Your task to perform on an android device: What's a good restaurant in Dallas? Image 0: 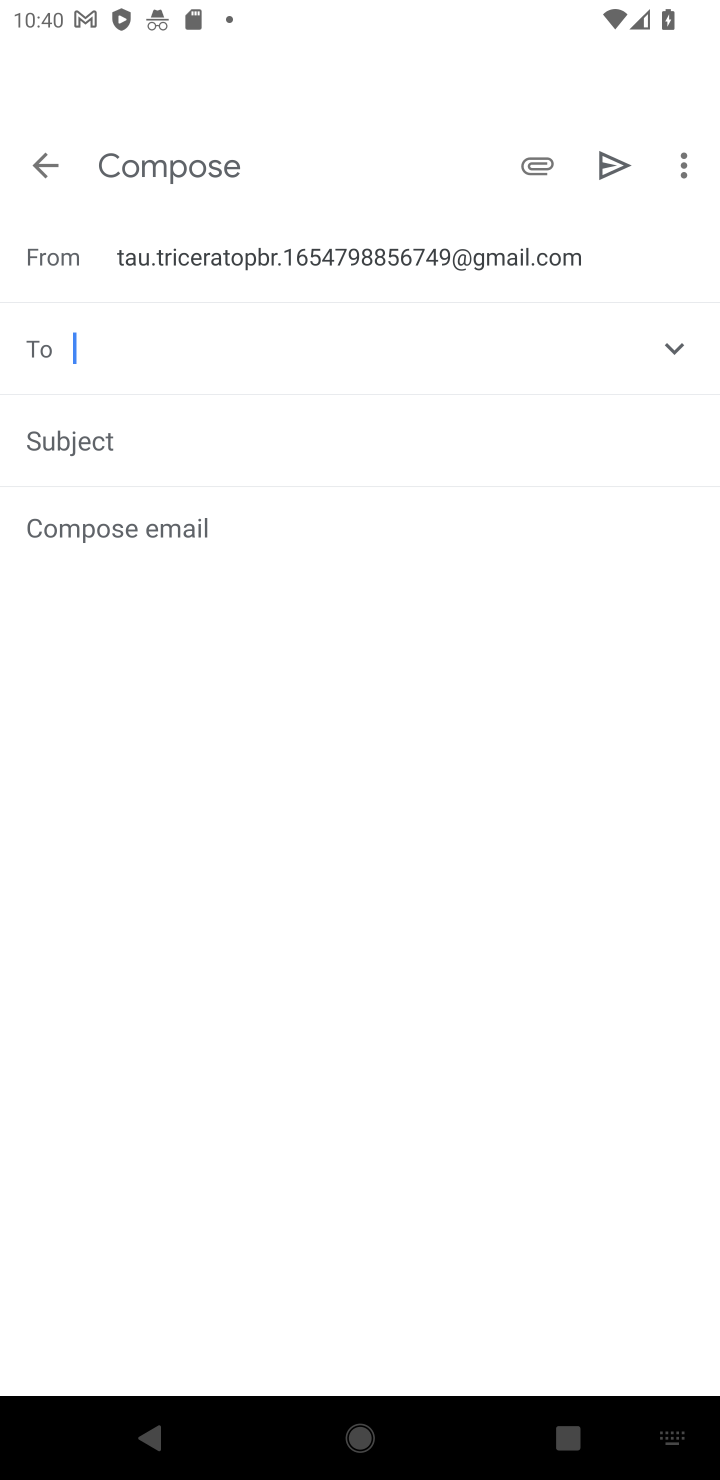
Step 0: press home button
Your task to perform on an android device: What's a good restaurant in Dallas? Image 1: 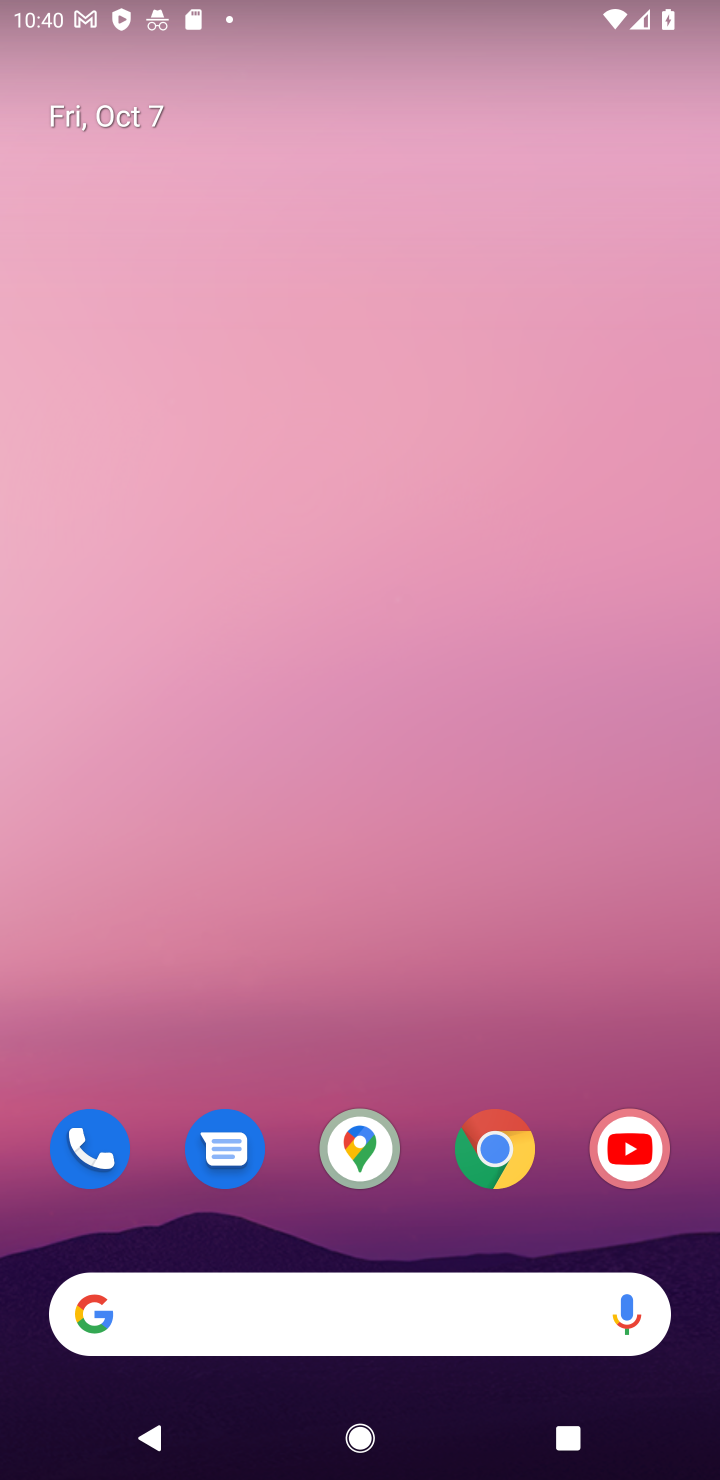
Step 1: click (331, 1316)
Your task to perform on an android device: What's a good restaurant in Dallas? Image 2: 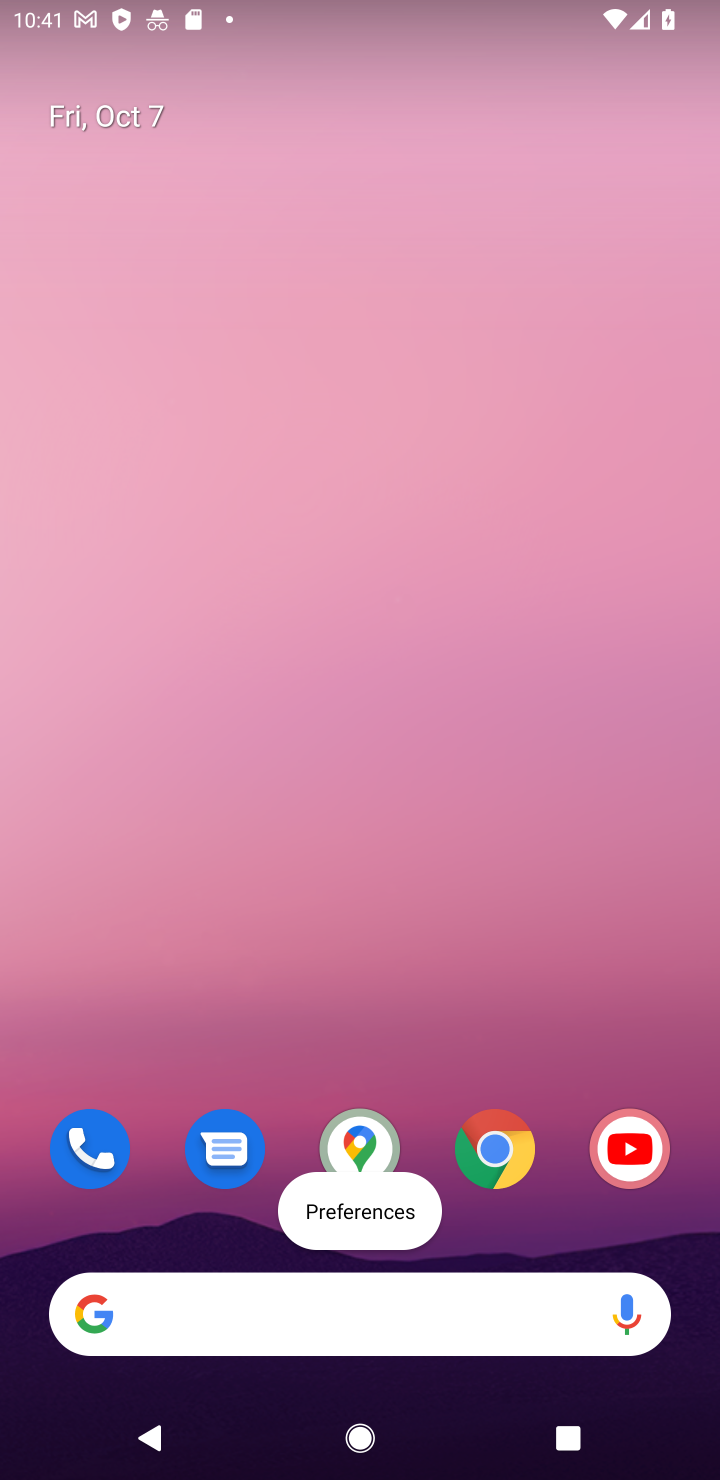
Step 2: click (331, 1316)
Your task to perform on an android device: What's a good restaurant in Dallas? Image 3: 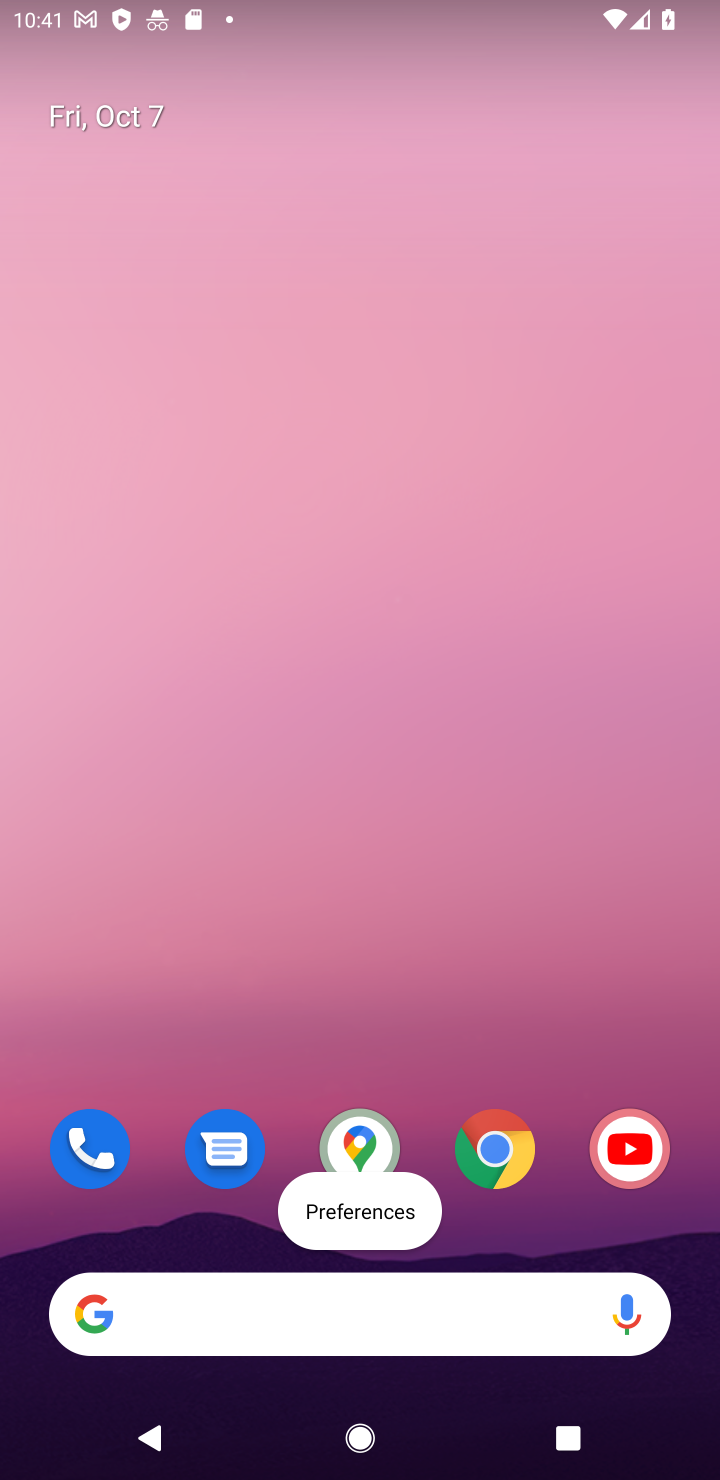
Step 3: click (331, 1316)
Your task to perform on an android device: What's a good restaurant in Dallas? Image 4: 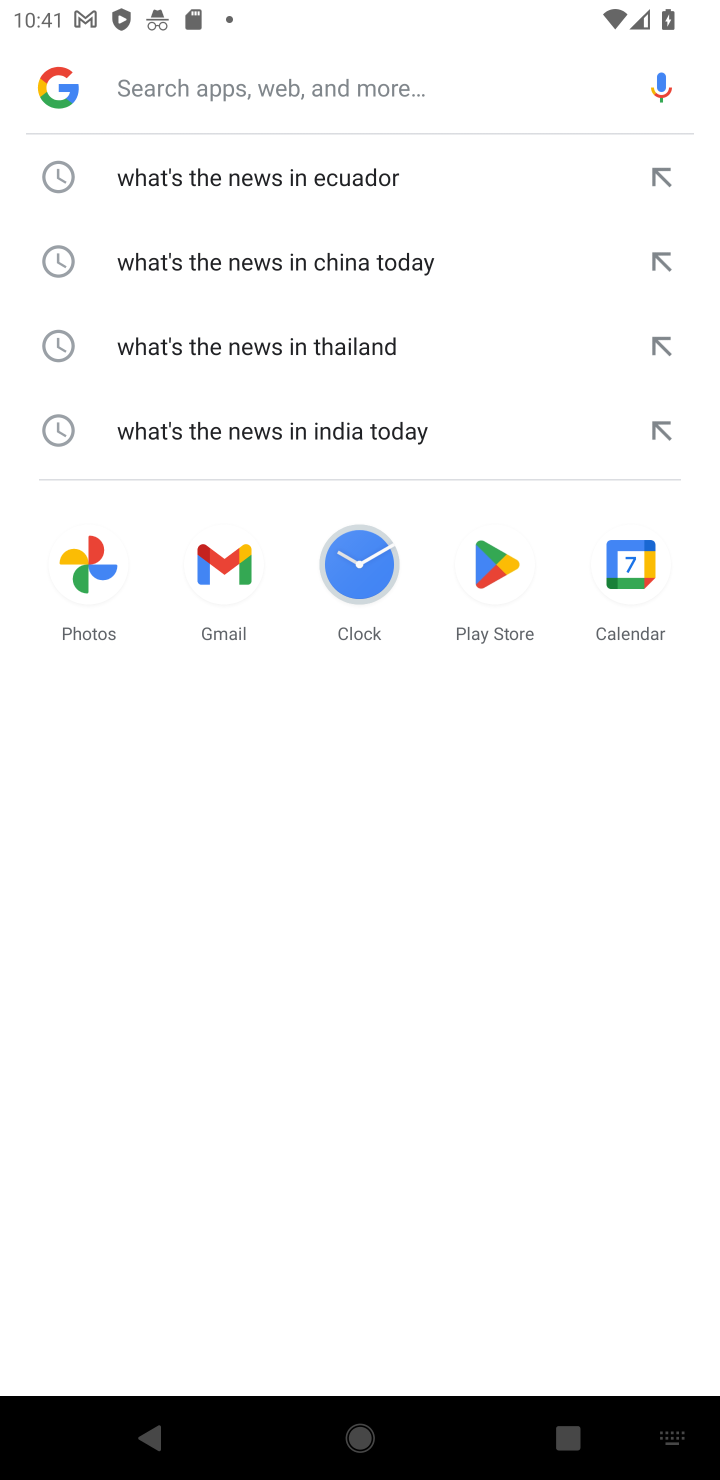
Step 4: type "What's a good restaurant in Dallas?"
Your task to perform on an android device: What's a good restaurant in Dallas? Image 5: 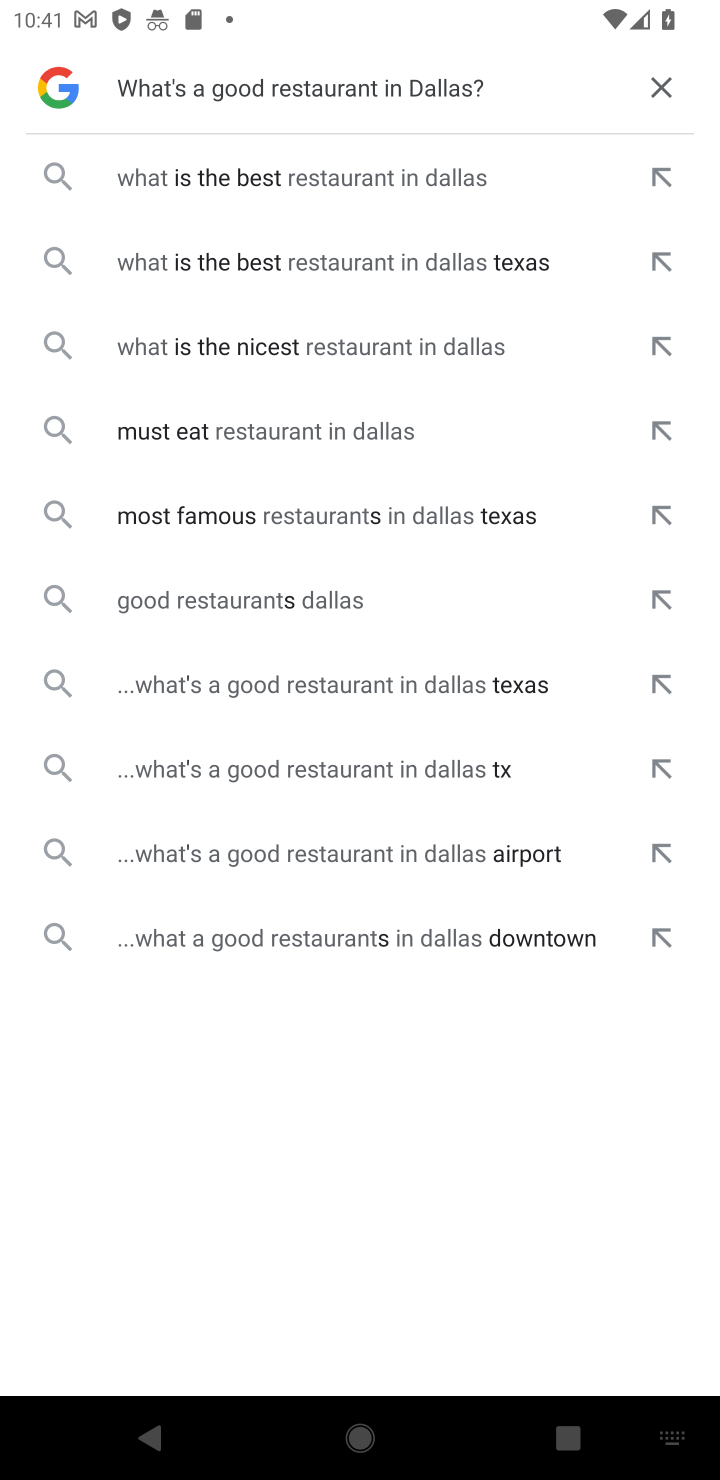
Step 5: click (366, 194)
Your task to perform on an android device: What's a good restaurant in Dallas? Image 6: 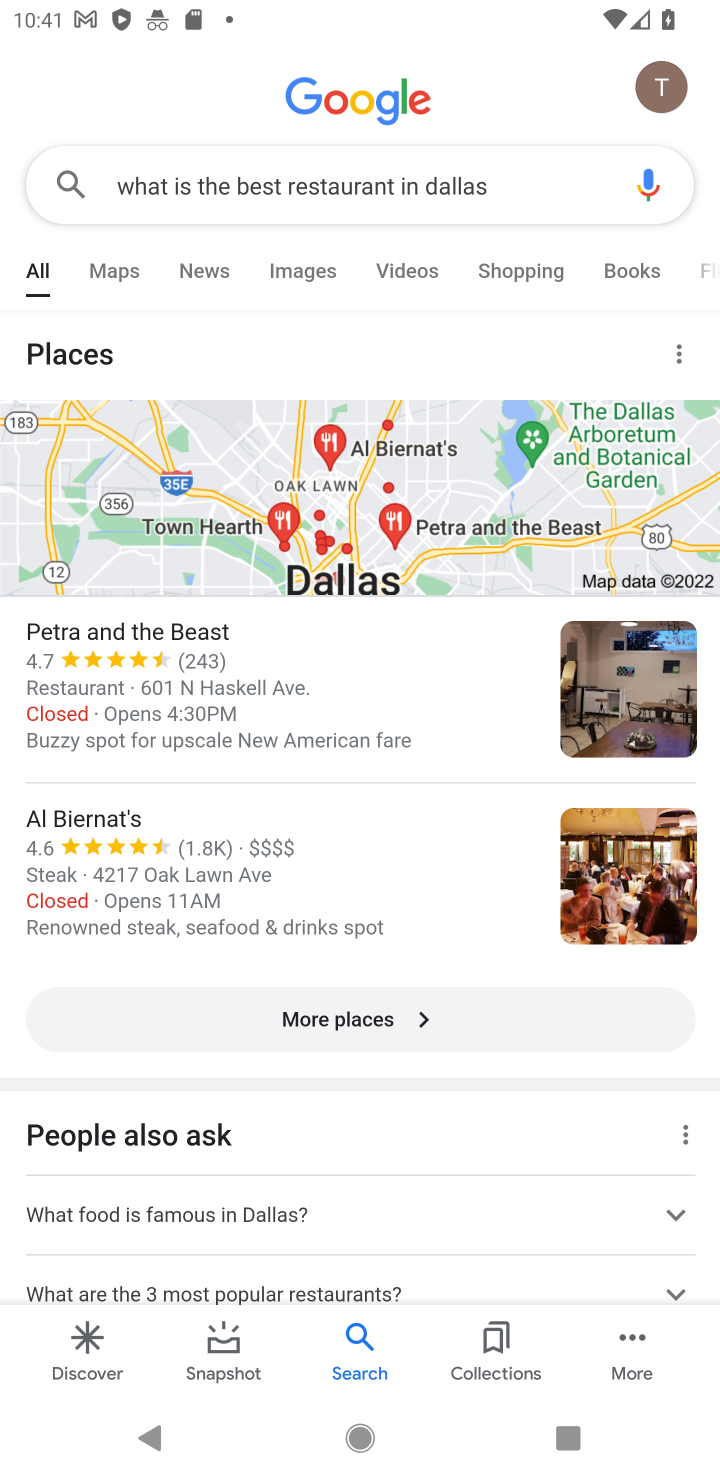
Step 6: task complete